Your task to perform on an android device: What's on my calendar today? Image 0: 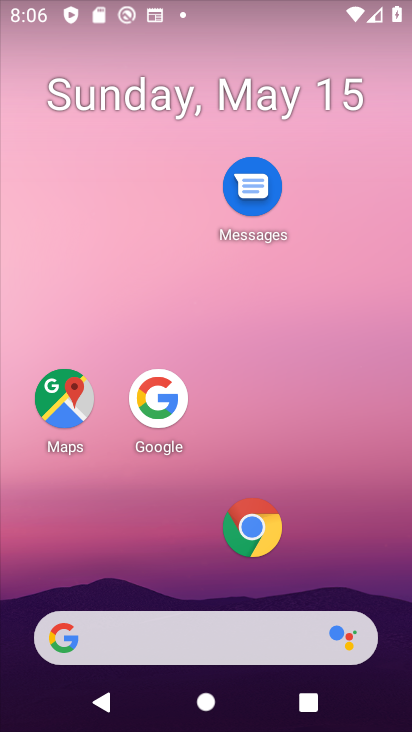
Step 0: press home button
Your task to perform on an android device: What's on my calendar today? Image 1: 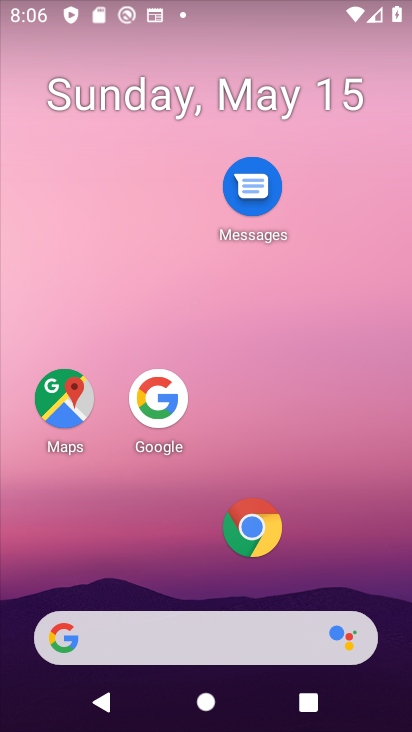
Step 1: drag from (175, 600) to (271, 200)
Your task to perform on an android device: What's on my calendar today? Image 2: 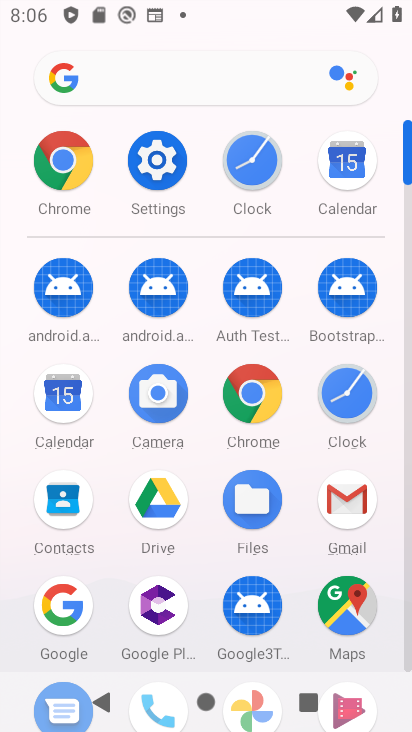
Step 2: click (59, 406)
Your task to perform on an android device: What's on my calendar today? Image 3: 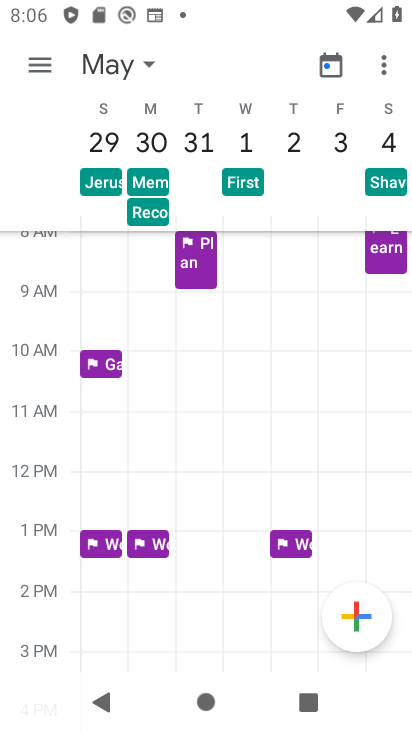
Step 3: click (100, 63)
Your task to perform on an android device: What's on my calendar today? Image 4: 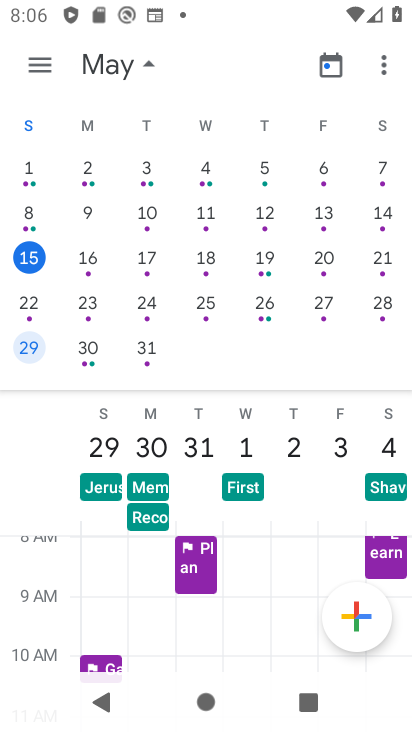
Step 4: click (28, 255)
Your task to perform on an android device: What's on my calendar today? Image 5: 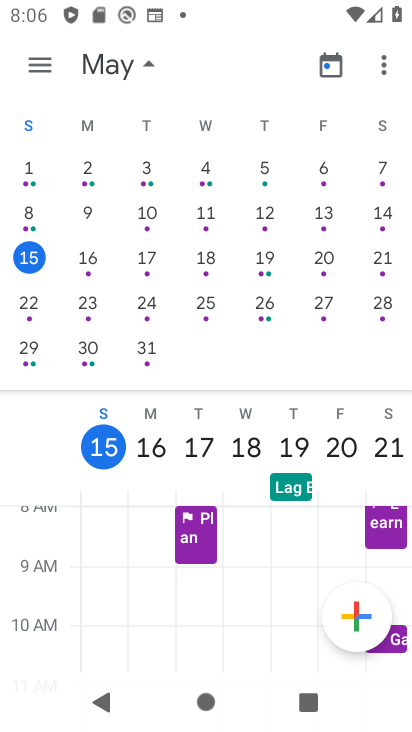
Step 5: click (44, 61)
Your task to perform on an android device: What's on my calendar today? Image 6: 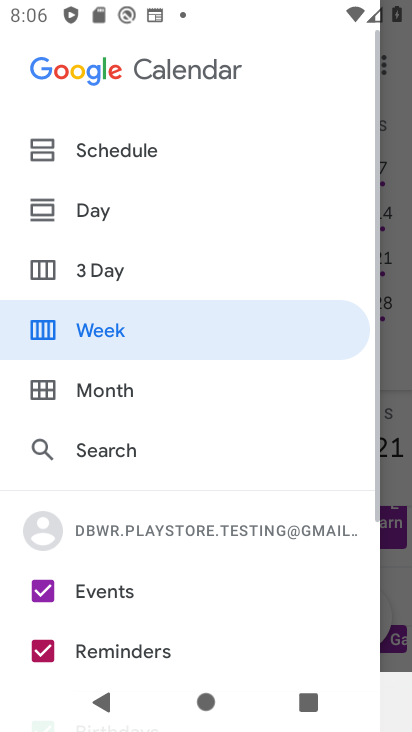
Step 6: click (92, 220)
Your task to perform on an android device: What's on my calendar today? Image 7: 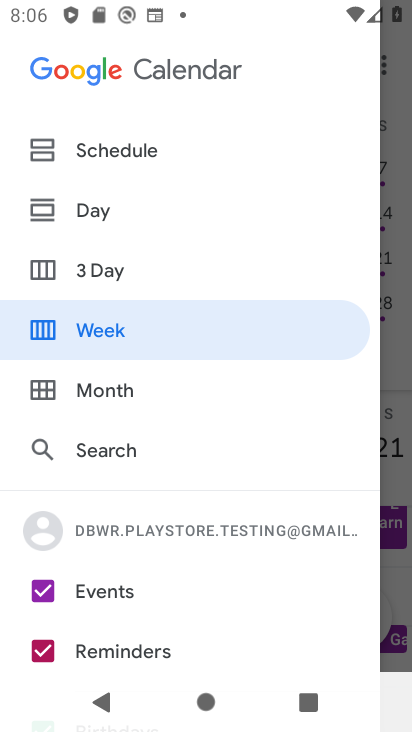
Step 7: click (94, 207)
Your task to perform on an android device: What's on my calendar today? Image 8: 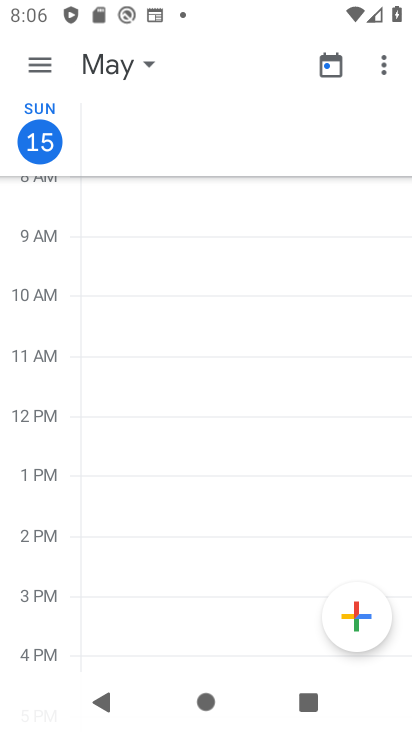
Step 8: click (46, 66)
Your task to perform on an android device: What's on my calendar today? Image 9: 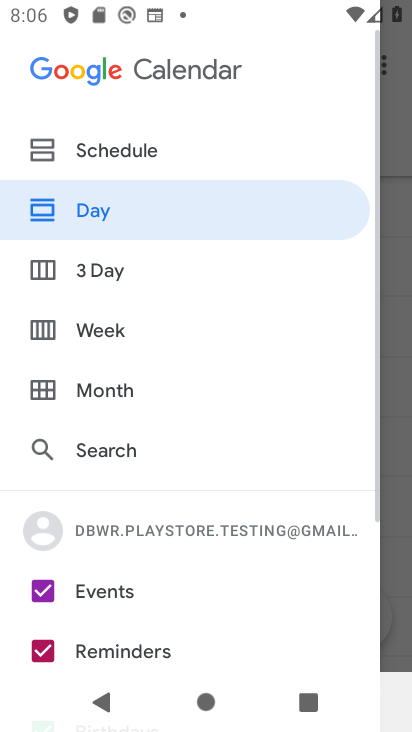
Step 9: click (95, 148)
Your task to perform on an android device: What's on my calendar today? Image 10: 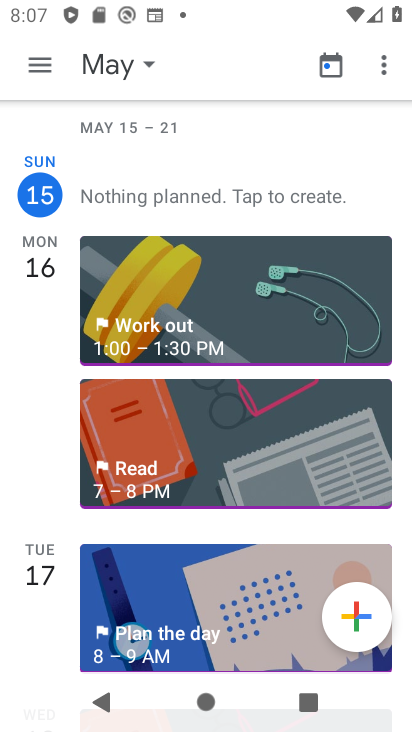
Step 10: task complete